Your task to perform on an android device: Open the phone app and click the voicemail tab. Image 0: 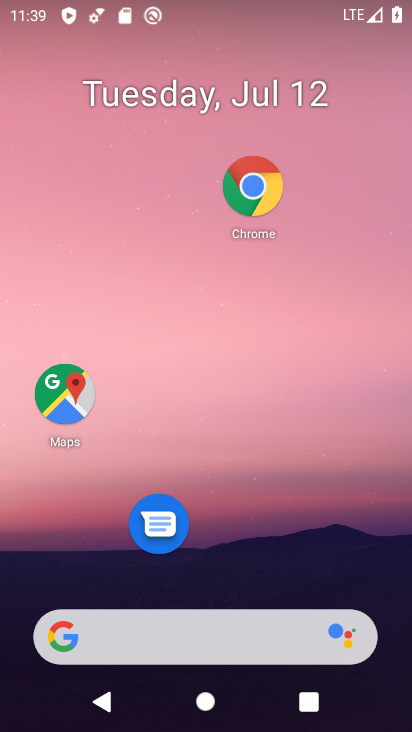
Step 0: drag from (219, 585) to (179, 96)
Your task to perform on an android device: Open the phone app and click the voicemail tab. Image 1: 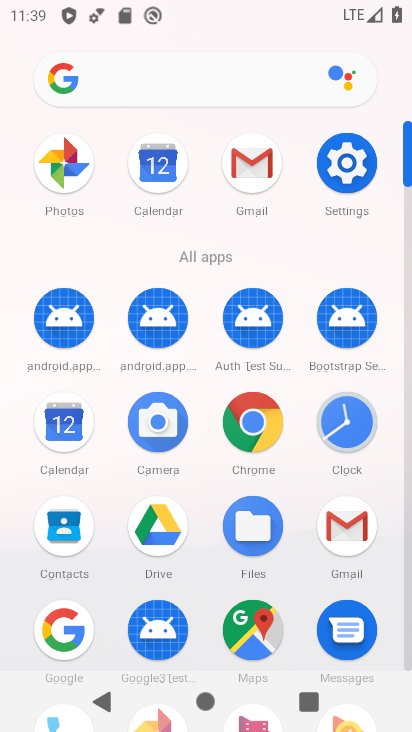
Step 1: drag from (205, 596) to (192, 307)
Your task to perform on an android device: Open the phone app and click the voicemail tab. Image 2: 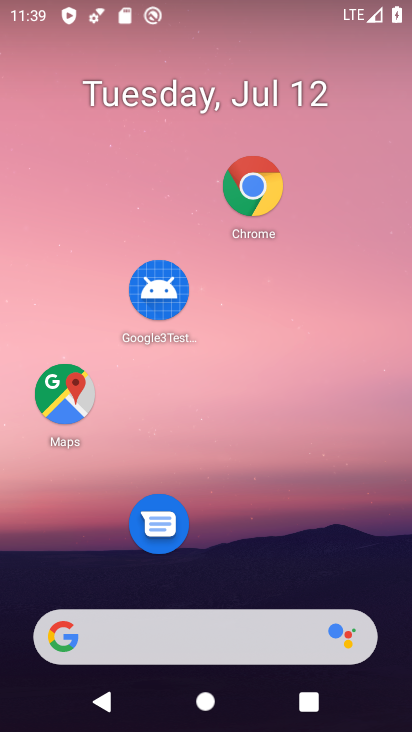
Step 2: drag from (215, 566) to (237, 6)
Your task to perform on an android device: Open the phone app and click the voicemail tab. Image 3: 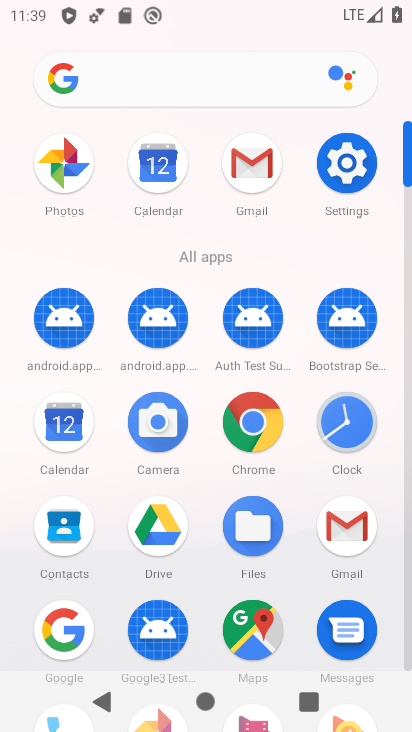
Step 3: drag from (212, 523) to (200, 147)
Your task to perform on an android device: Open the phone app and click the voicemail tab. Image 4: 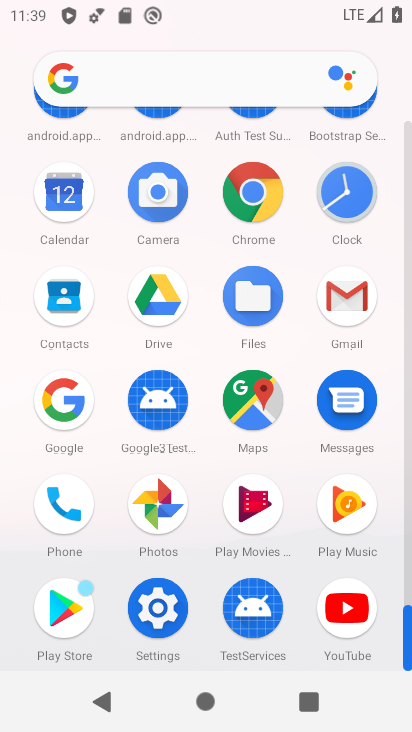
Step 4: click (61, 523)
Your task to perform on an android device: Open the phone app and click the voicemail tab. Image 5: 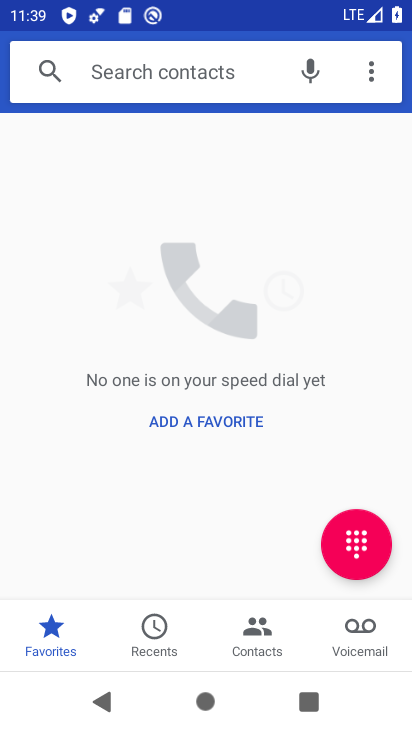
Step 5: click (368, 633)
Your task to perform on an android device: Open the phone app and click the voicemail tab. Image 6: 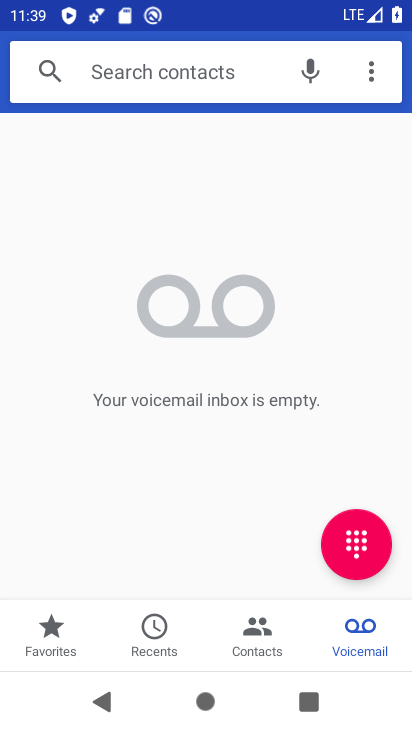
Step 6: task complete